Your task to perform on an android device: toggle notification dots Image 0: 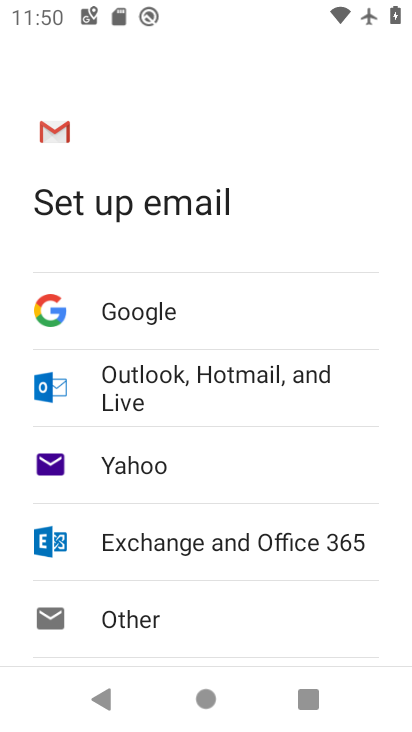
Step 0: press back button
Your task to perform on an android device: toggle notification dots Image 1: 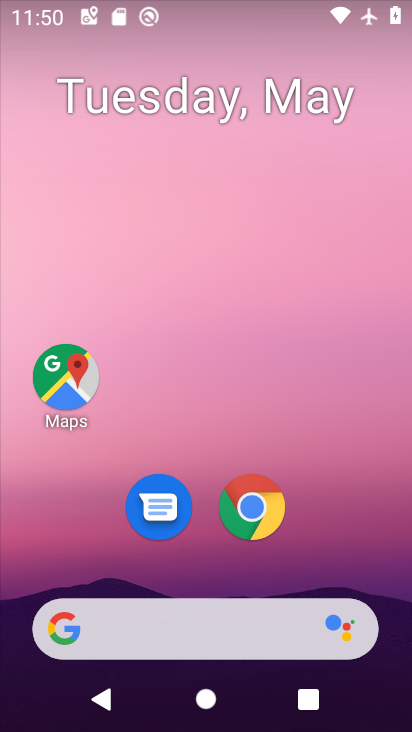
Step 1: drag from (266, 702) to (232, 57)
Your task to perform on an android device: toggle notification dots Image 2: 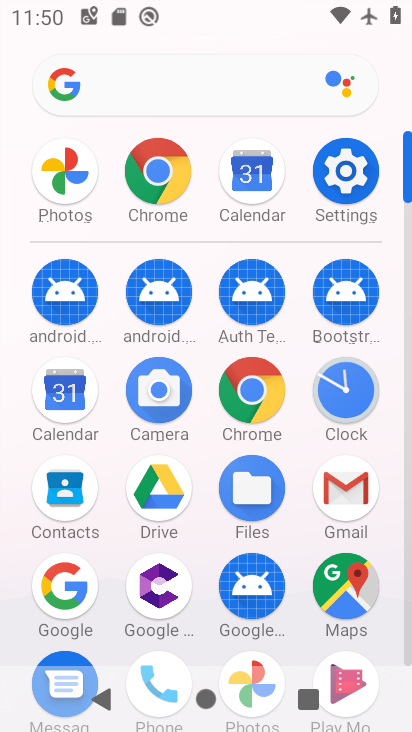
Step 2: click (329, 176)
Your task to perform on an android device: toggle notification dots Image 3: 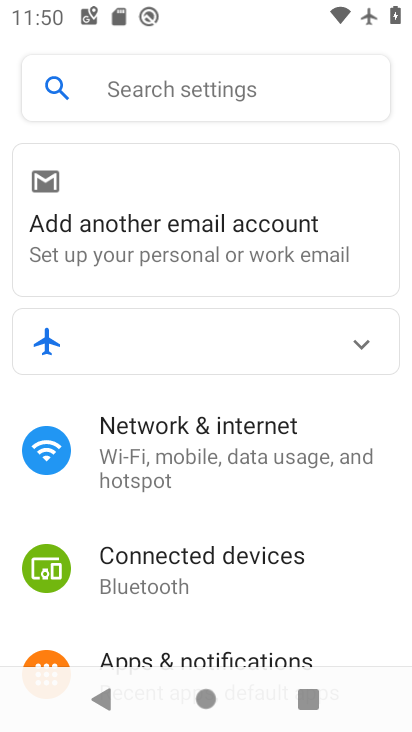
Step 3: drag from (214, 525) to (135, 245)
Your task to perform on an android device: toggle notification dots Image 4: 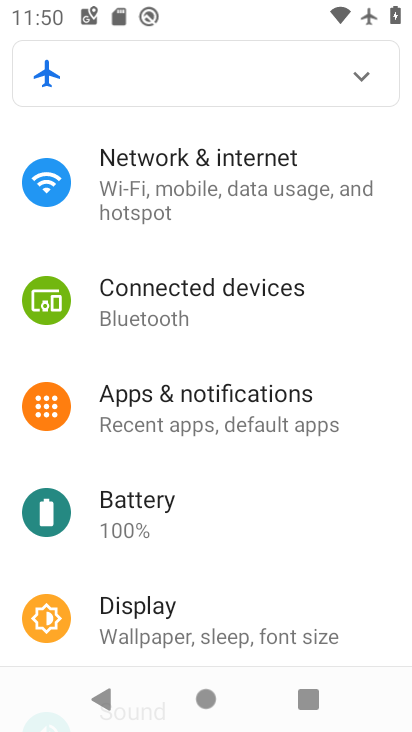
Step 4: drag from (185, 493) to (147, 125)
Your task to perform on an android device: toggle notification dots Image 5: 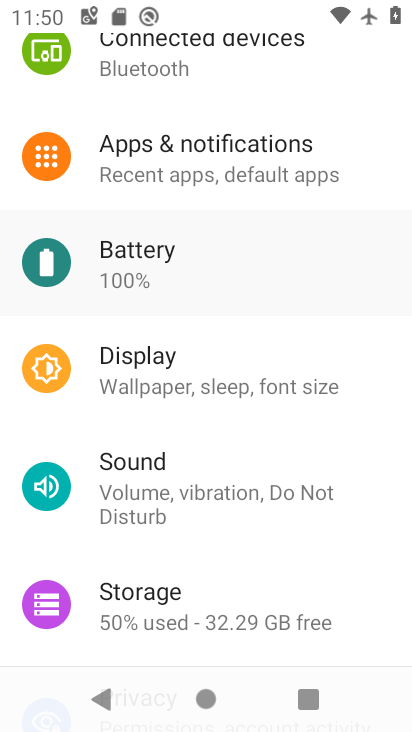
Step 5: drag from (209, 423) to (193, 154)
Your task to perform on an android device: toggle notification dots Image 6: 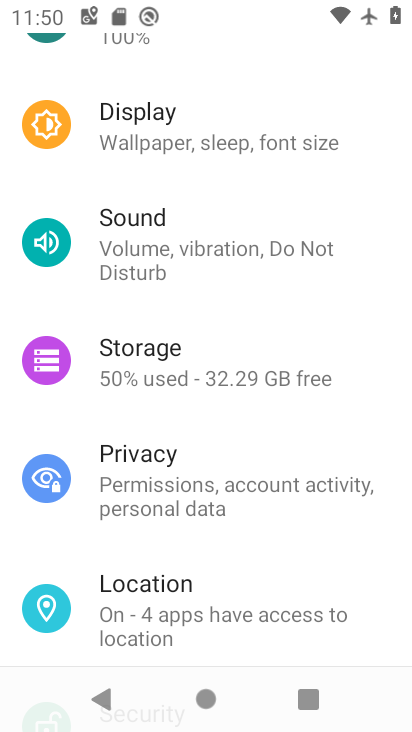
Step 6: drag from (192, 579) to (192, 183)
Your task to perform on an android device: toggle notification dots Image 7: 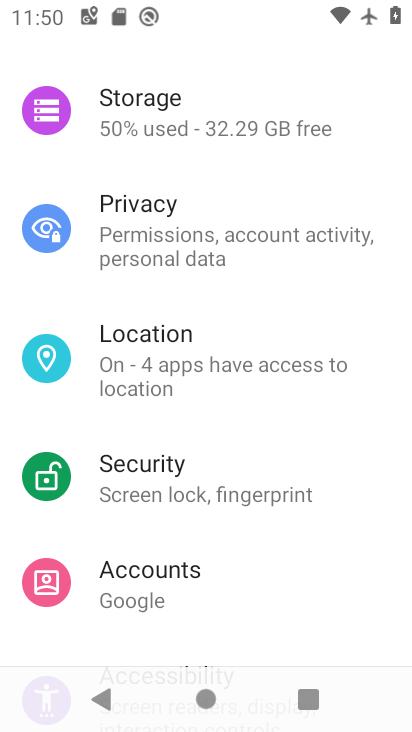
Step 7: drag from (256, 496) to (214, 163)
Your task to perform on an android device: toggle notification dots Image 8: 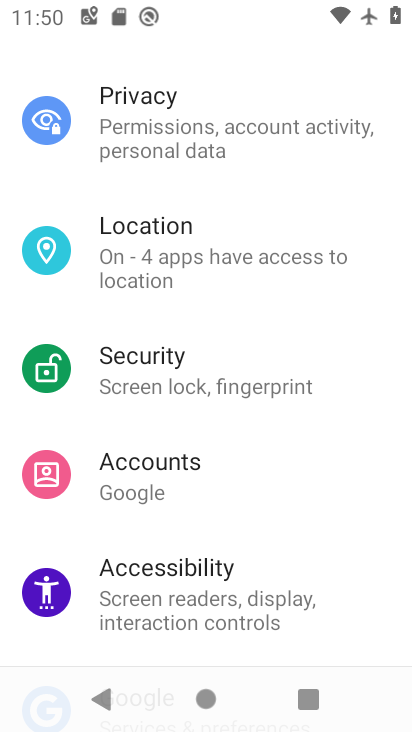
Step 8: drag from (218, 470) to (202, 221)
Your task to perform on an android device: toggle notification dots Image 9: 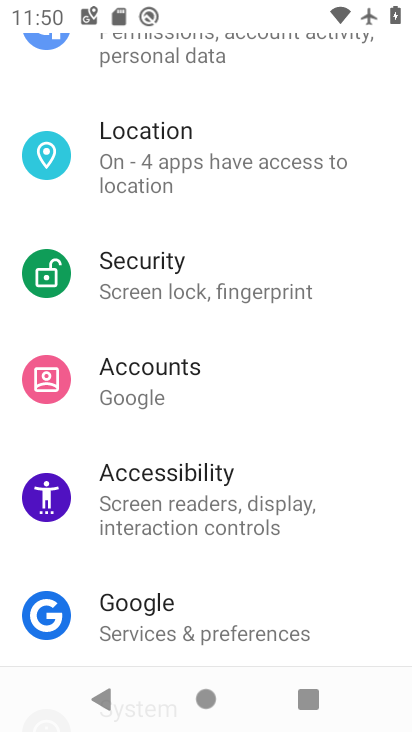
Step 9: drag from (117, 236) to (146, 547)
Your task to perform on an android device: toggle notification dots Image 10: 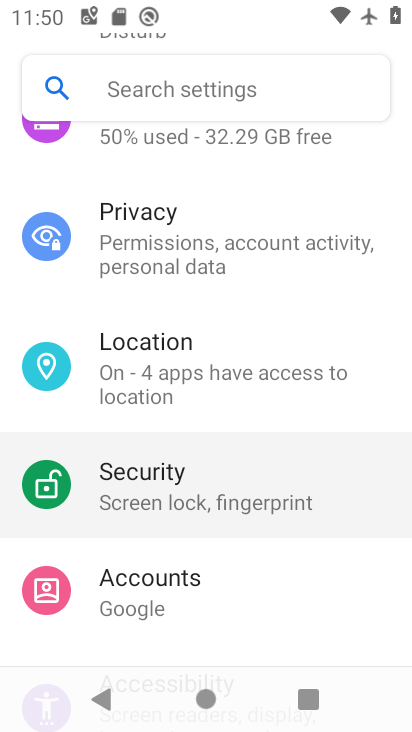
Step 10: drag from (136, 407) to (143, 473)
Your task to perform on an android device: toggle notification dots Image 11: 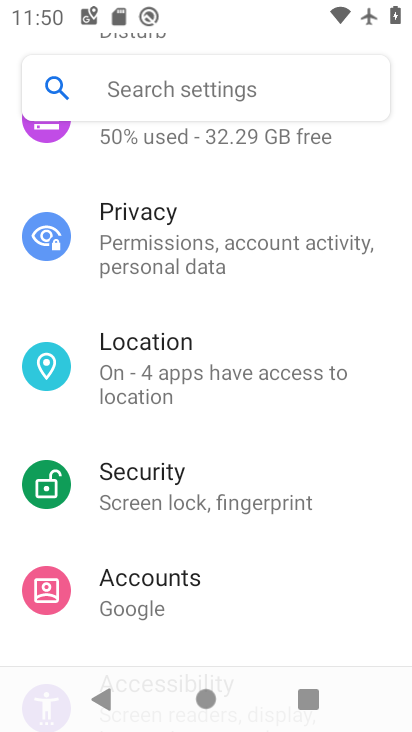
Step 11: drag from (189, 302) to (215, 501)
Your task to perform on an android device: toggle notification dots Image 12: 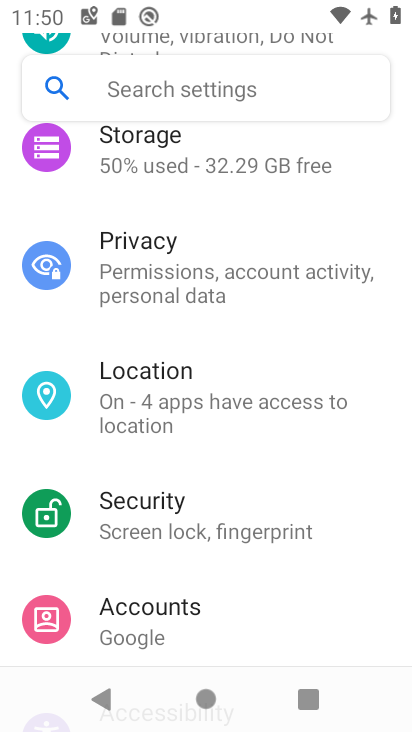
Step 12: drag from (211, 220) to (266, 478)
Your task to perform on an android device: toggle notification dots Image 13: 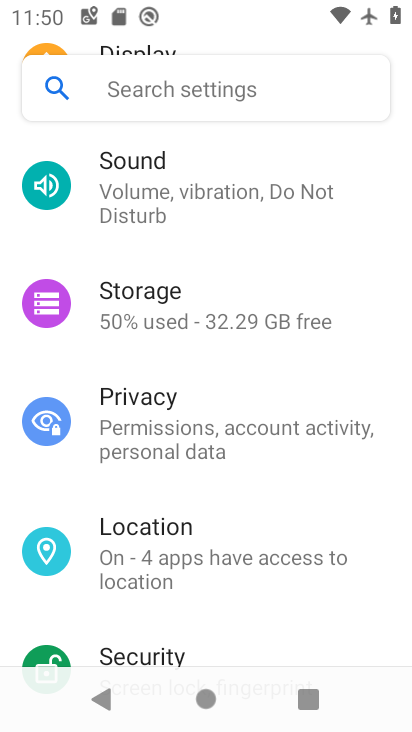
Step 13: drag from (185, 471) to (184, 620)
Your task to perform on an android device: toggle notification dots Image 14: 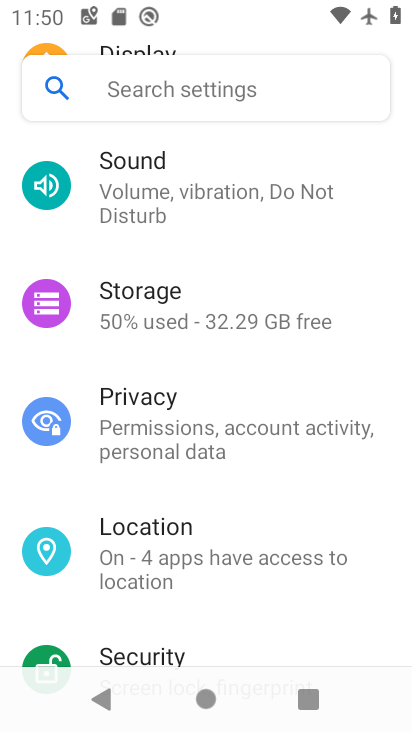
Step 14: drag from (181, 258) to (194, 493)
Your task to perform on an android device: toggle notification dots Image 15: 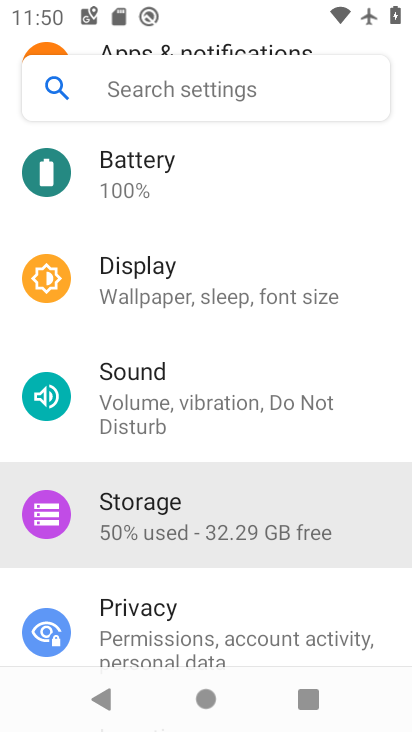
Step 15: drag from (193, 246) to (214, 476)
Your task to perform on an android device: toggle notification dots Image 16: 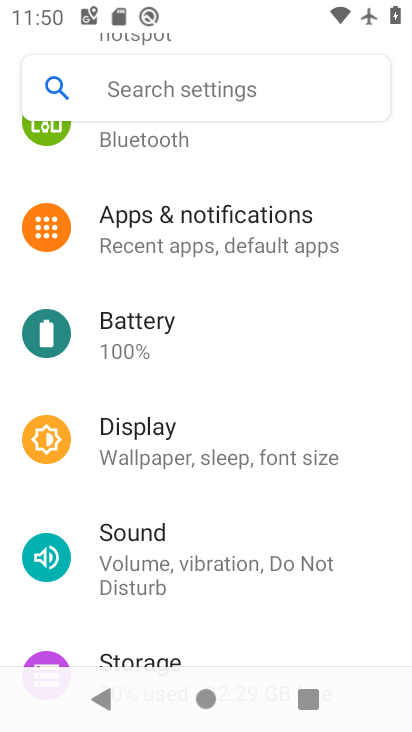
Step 16: drag from (198, 247) to (199, 528)
Your task to perform on an android device: toggle notification dots Image 17: 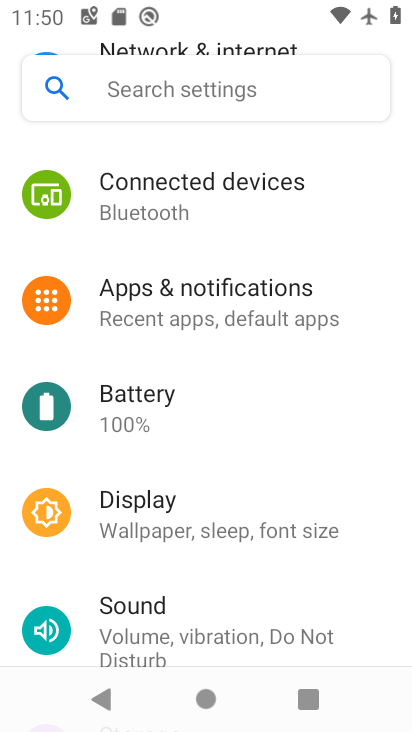
Step 17: drag from (199, 292) to (197, 537)
Your task to perform on an android device: toggle notification dots Image 18: 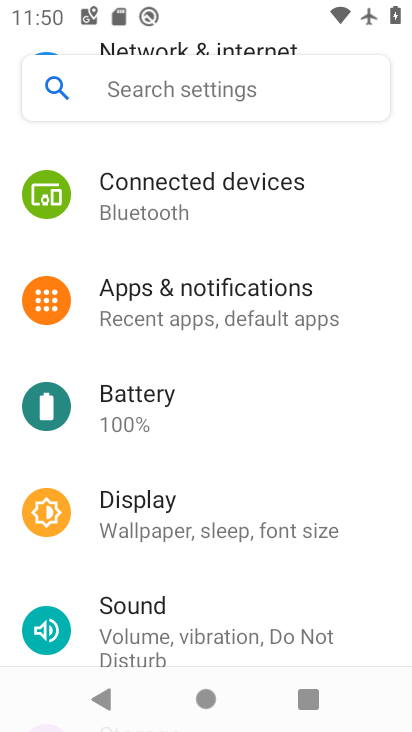
Step 18: click (210, 316)
Your task to perform on an android device: toggle notification dots Image 19: 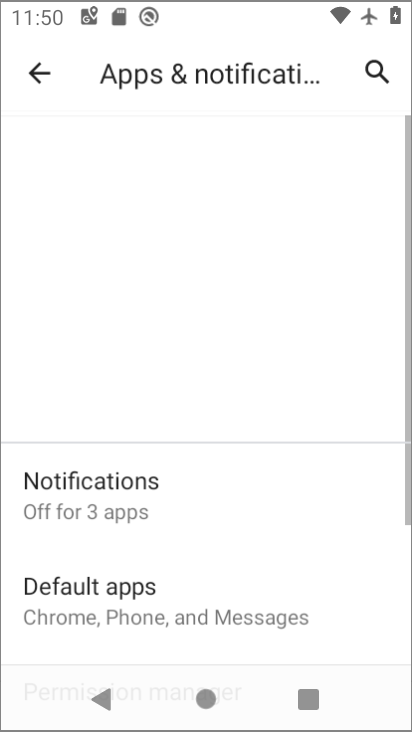
Step 19: click (209, 304)
Your task to perform on an android device: toggle notification dots Image 20: 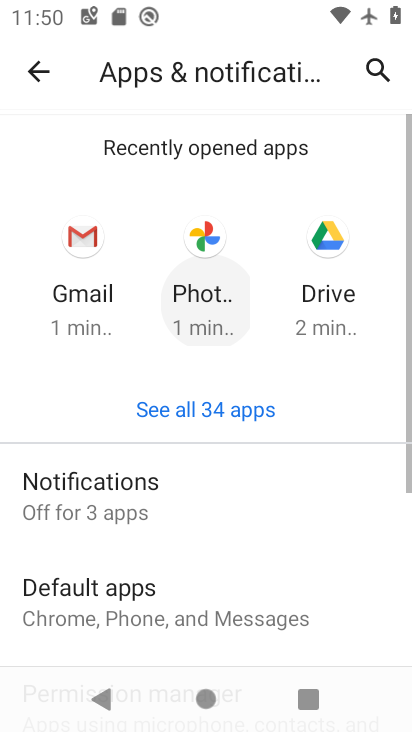
Step 20: click (209, 304)
Your task to perform on an android device: toggle notification dots Image 21: 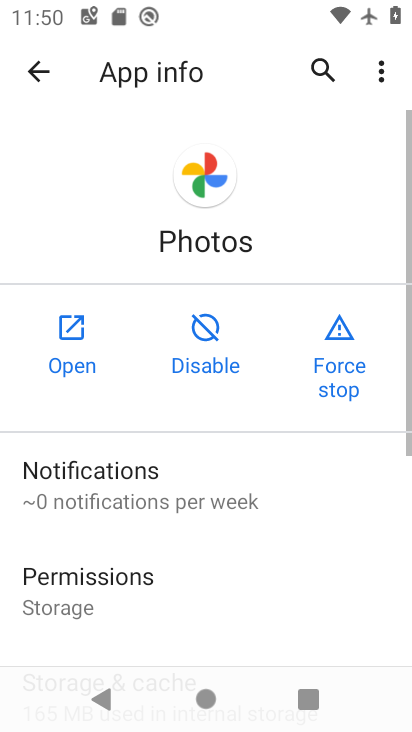
Step 21: click (50, 527)
Your task to perform on an android device: toggle notification dots Image 22: 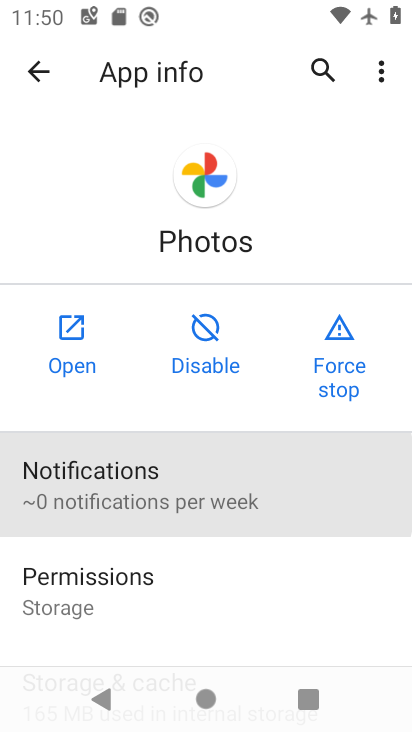
Step 22: click (75, 488)
Your task to perform on an android device: toggle notification dots Image 23: 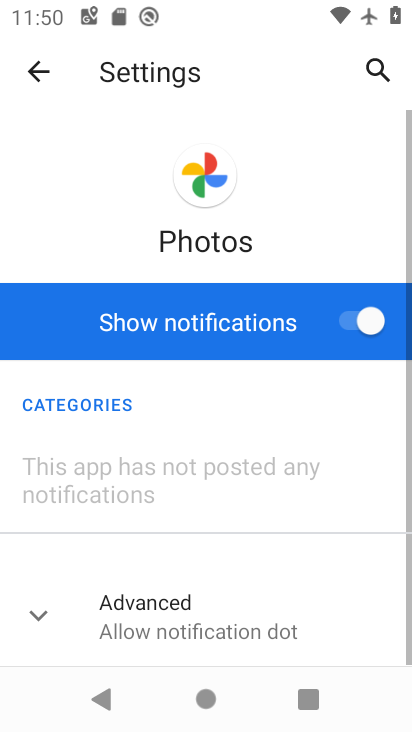
Step 23: click (85, 482)
Your task to perform on an android device: toggle notification dots Image 24: 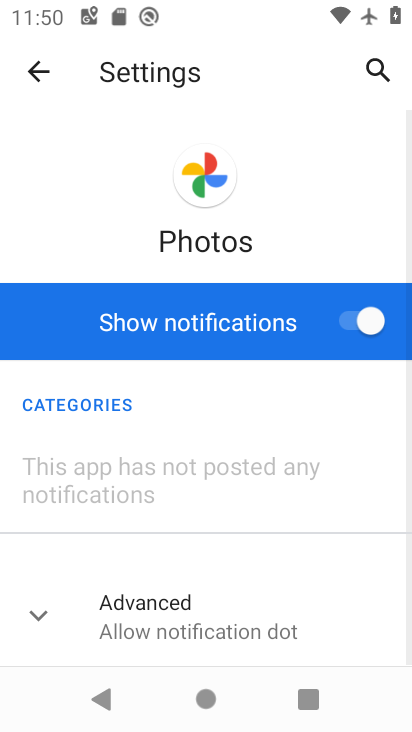
Step 24: drag from (246, 524) to (240, 202)
Your task to perform on an android device: toggle notification dots Image 25: 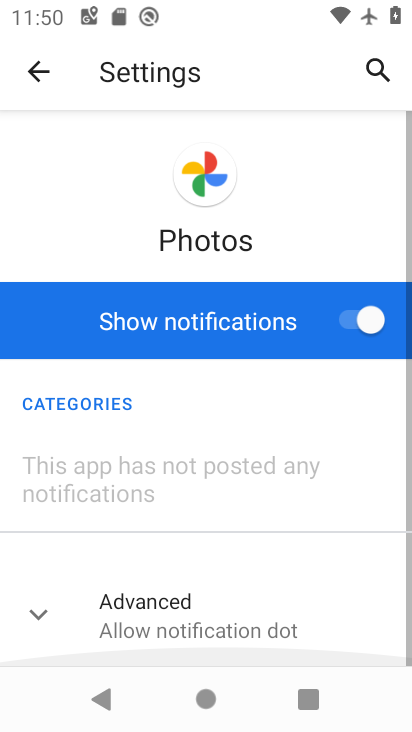
Step 25: drag from (278, 448) to (278, 105)
Your task to perform on an android device: toggle notification dots Image 26: 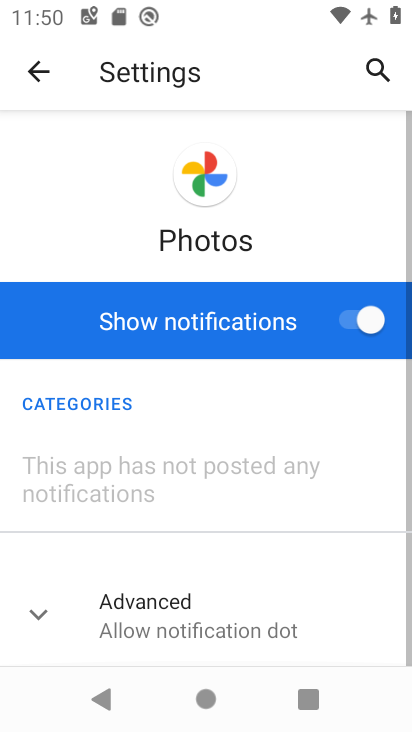
Step 26: drag from (276, 441) to (240, 158)
Your task to perform on an android device: toggle notification dots Image 27: 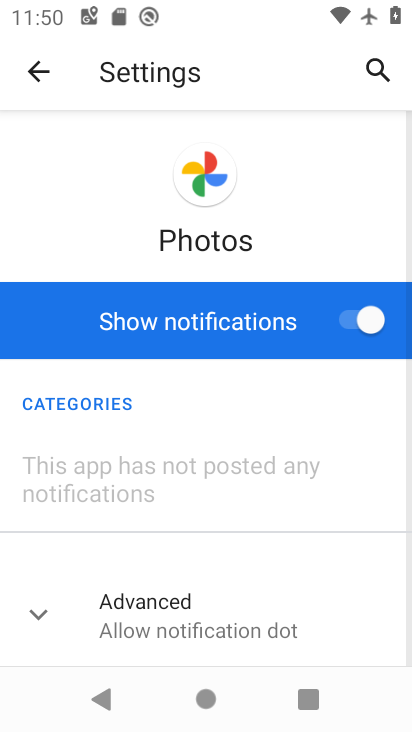
Step 27: click (33, 80)
Your task to perform on an android device: toggle notification dots Image 28: 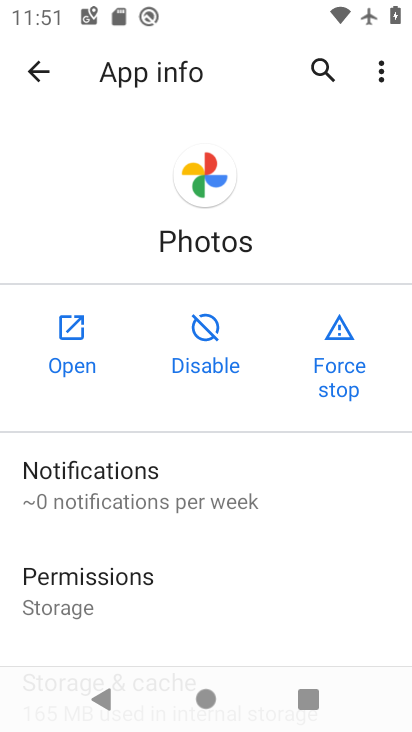
Step 28: click (78, 484)
Your task to perform on an android device: toggle notification dots Image 29: 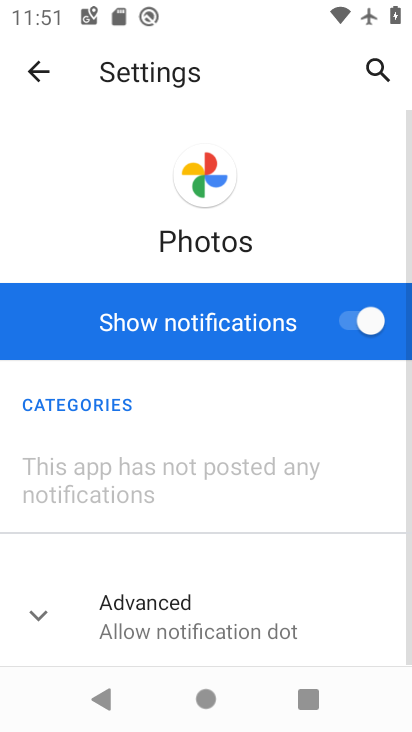
Step 29: drag from (193, 550) to (153, 219)
Your task to perform on an android device: toggle notification dots Image 30: 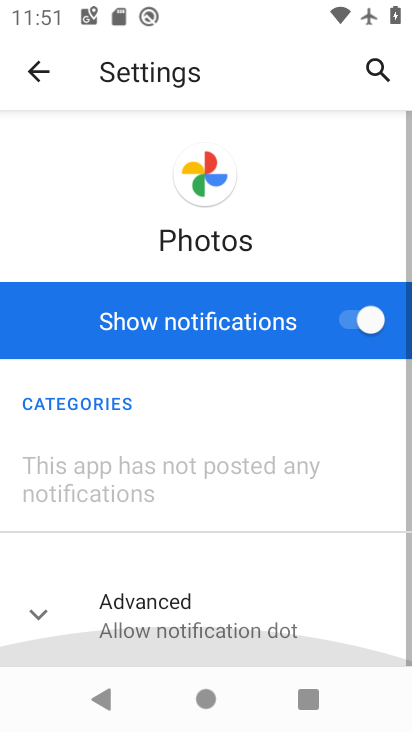
Step 30: drag from (182, 539) to (195, 265)
Your task to perform on an android device: toggle notification dots Image 31: 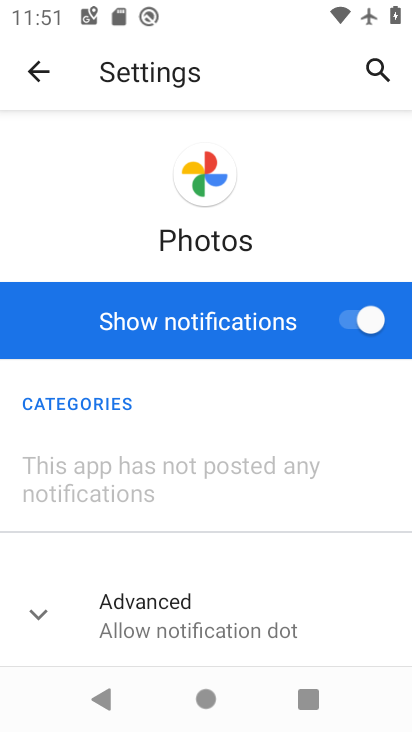
Step 31: click (41, 78)
Your task to perform on an android device: toggle notification dots Image 32: 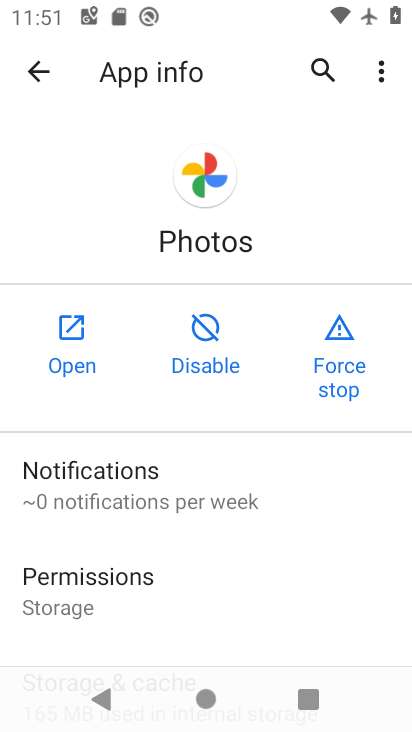
Step 32: click (28, 72)
Your task to perform on an android device: toggle notification dots Image 33: 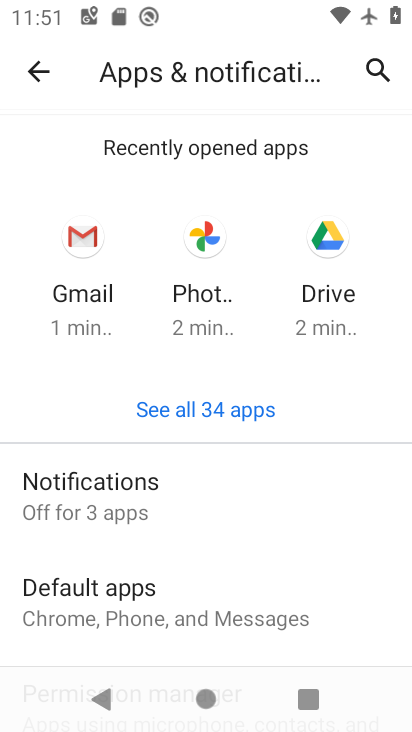
Step 33: click (87, 483)
Your task to perform on an android device: toggle notification dots Image 34: 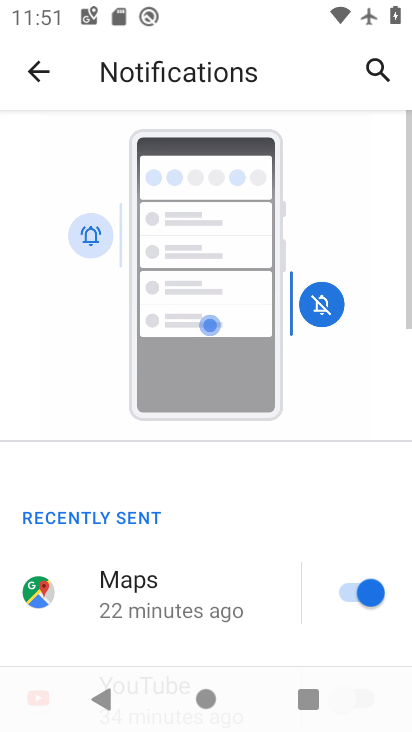
Step 34: drag from (215, 585) to (164, 177)
Your task to perform on an android device: toggle notification dots Image 35: 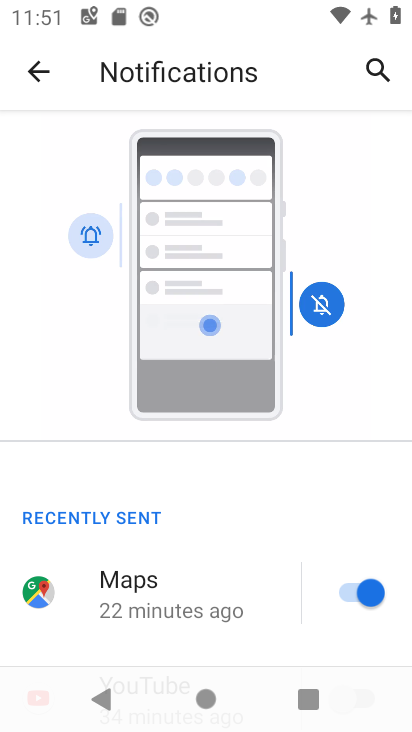
Step 35: drag from (164, 189) to (126, 250)
Your task to perform on an android device: toggle notification dots Image 36: 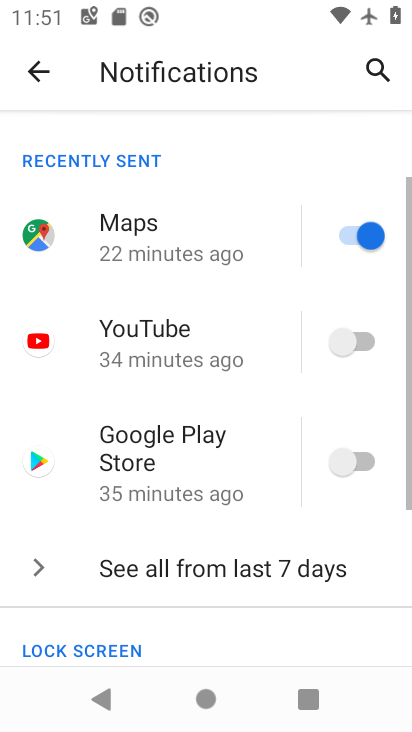
Step 36: drag from (229, 556) to (213, 226)
Your task to perform on an android device: toggle notification dots Image 37: 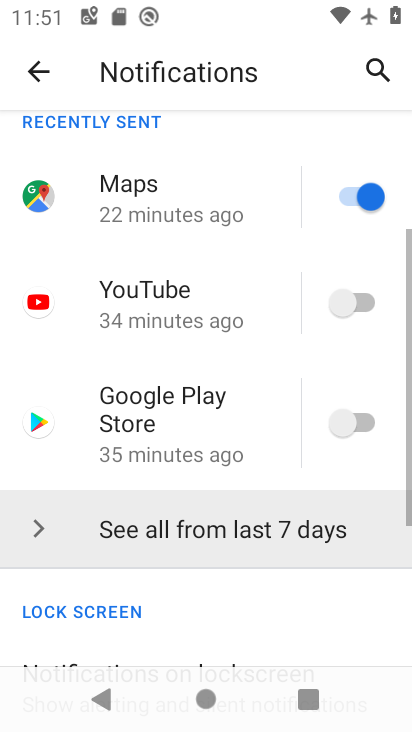
Step 37: drag from (276, 516) to (225, 166)
Your task to perform on an android device: toggle notification dots Image 38: 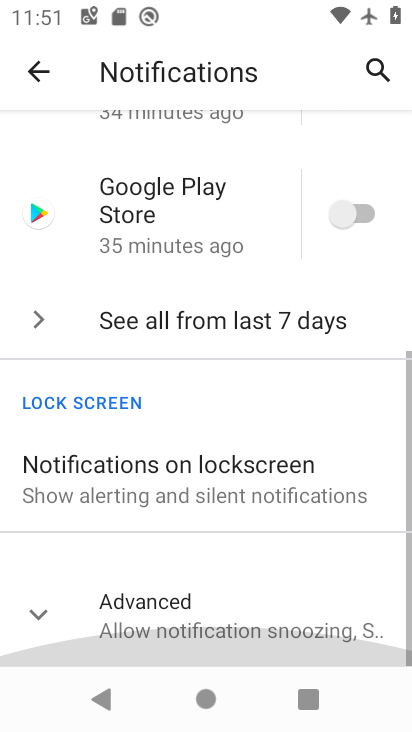
Step 38: drag from (232, 484) to (180, 110)
Your task to perform on an android device: toggle notification dots Image 39: 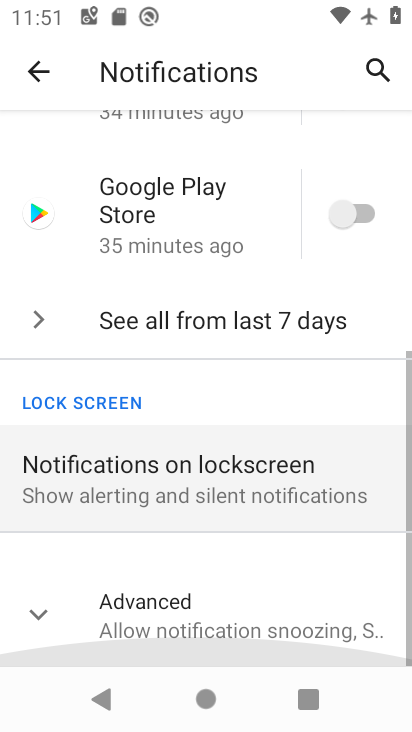
Step 39: drag from (220, 546) to (171, 202)
Your task to perform on an android device: toggle notification dots Image 40: 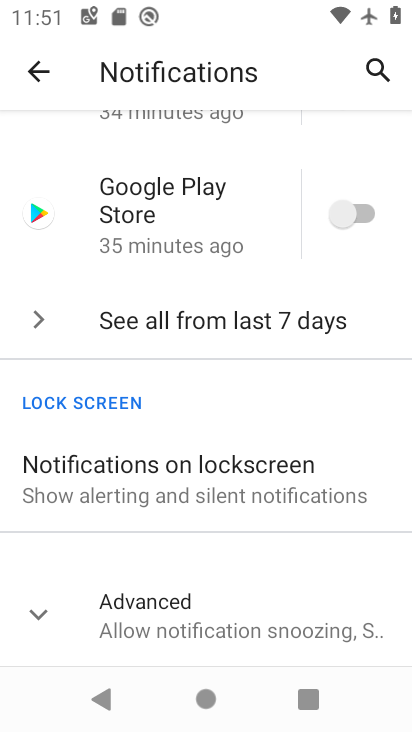
Step 40: click (166, 613)
Your task to perform on an android device: toggle notification dots Image 41: 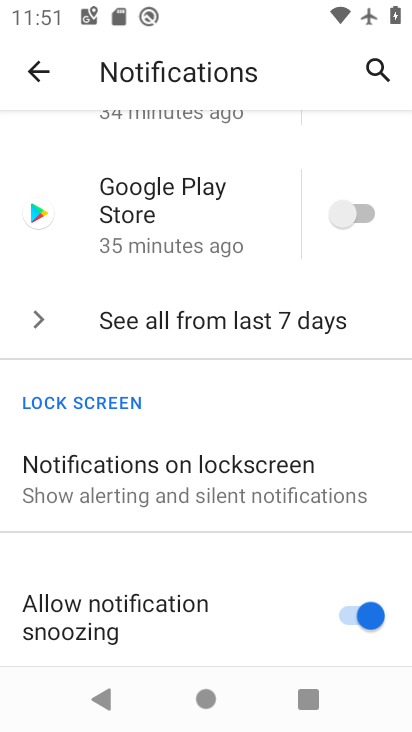
Step 41: drag from (263, 588) to (164, 233)
Your task to perform on an android device: toggle notification dots Image 42: 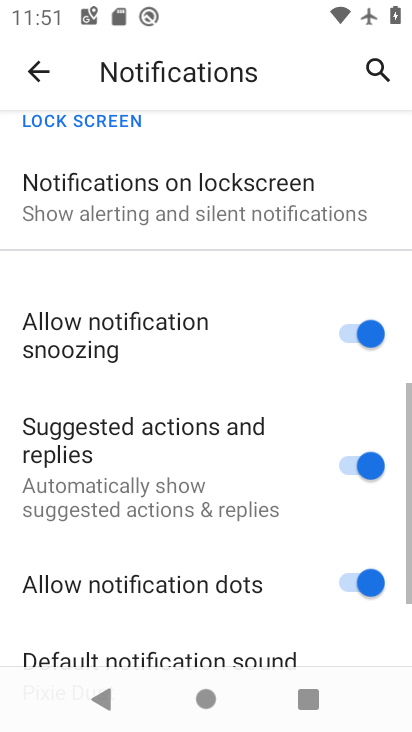
Step 42: drag from (182, 516) to (153, 227)
Your task to perform on an android device: toggle notification dots Image 43: 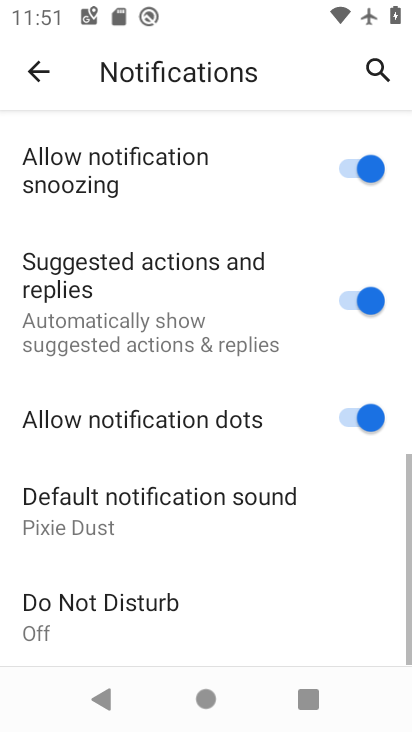
Step 43: drag from (192, 522) to (192, 105)
Your task to perform on an android device: toggle notification dots Image 44: 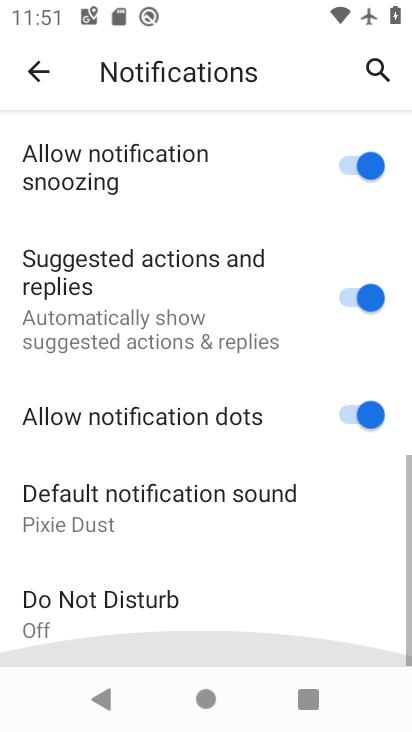
Step 44: drag from (293, 524) to (254, 137)
Your task to perform on an android device: toggle notification dots Image 45: 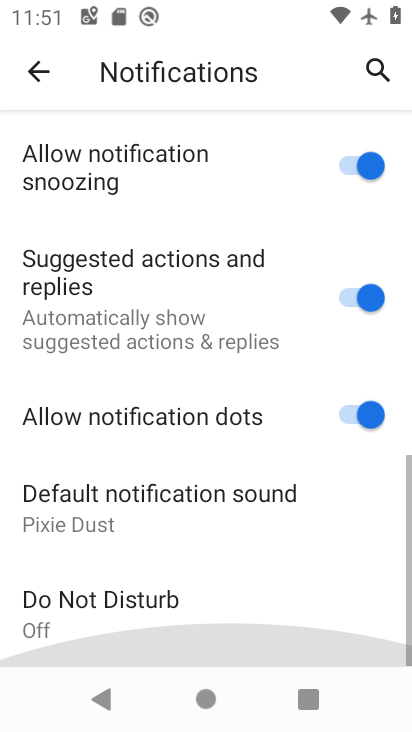
Step 45: drag from (248, 486) to (176, 142)
Your task to perform on an android device: toggle notification dots Image 46: 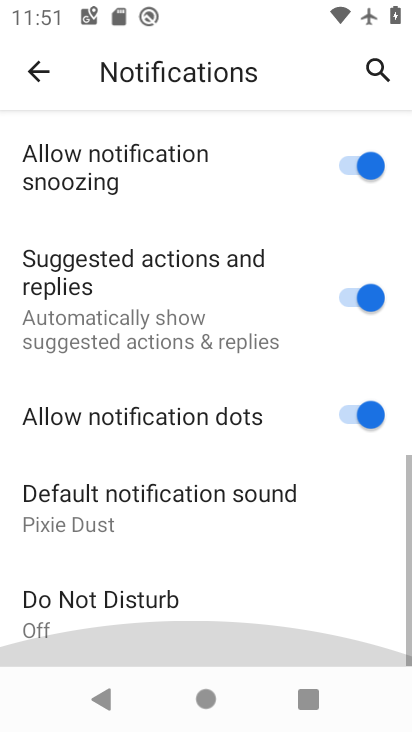
Step 46: drag from (139, 460) to (116, 200)
Your task to perform on an android device: toggle notification dots Image 47: 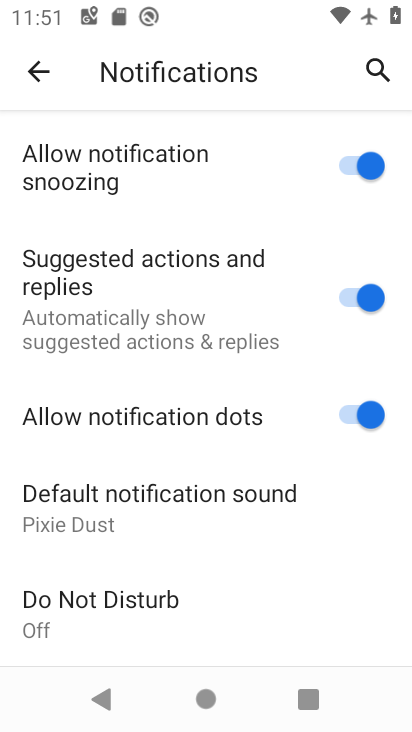
Step 47: click (354, 411)
Your task to perform on an android device: toggle notification dots Image 48: 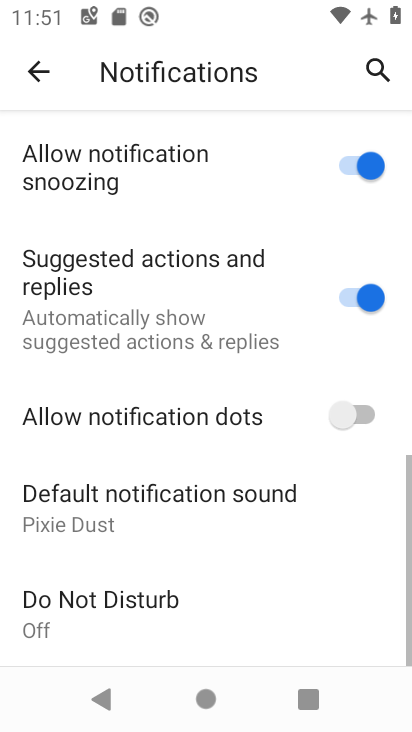
Step 48: task complete